Your task to perform on an android device: Go to Reddit.com Image 0: 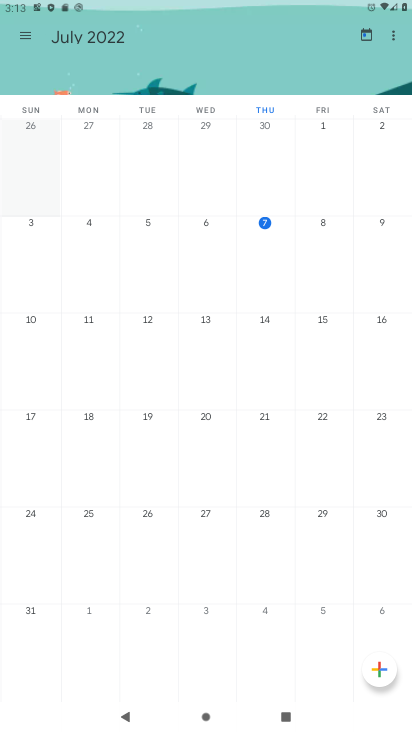
Step 0: press home button
Your task to perform on an android device: Go to Reddit.com Image 1: 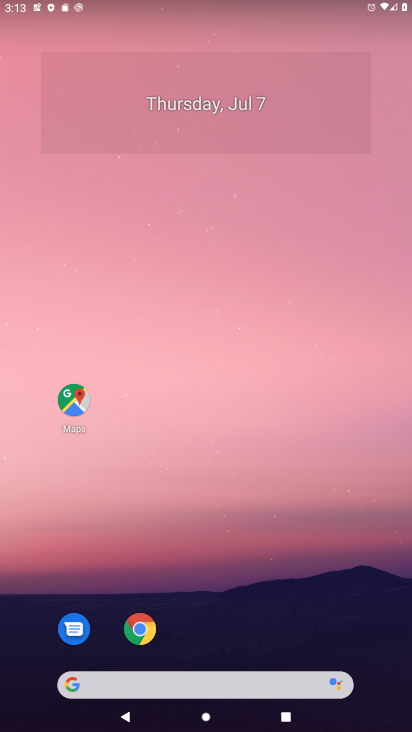
Step 1: click (187, 678)
Your task to perform on an android device: Go to Reddit.com Image 2: 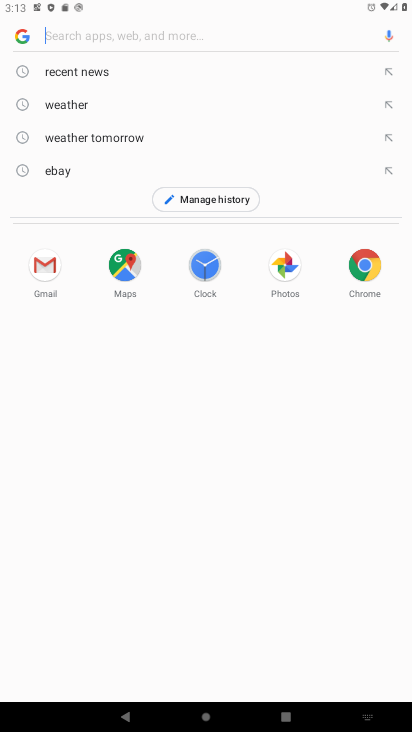
Step 2: type "reddit"
Your task to perform on an android device: Go to Reddit.com Image 3: 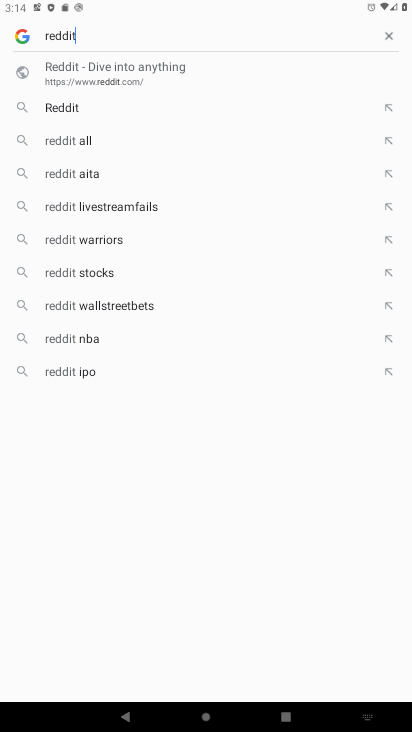
Step 3: click (158, 79)
Your task to perform on an android device: Go to Reddit.com Image 4: 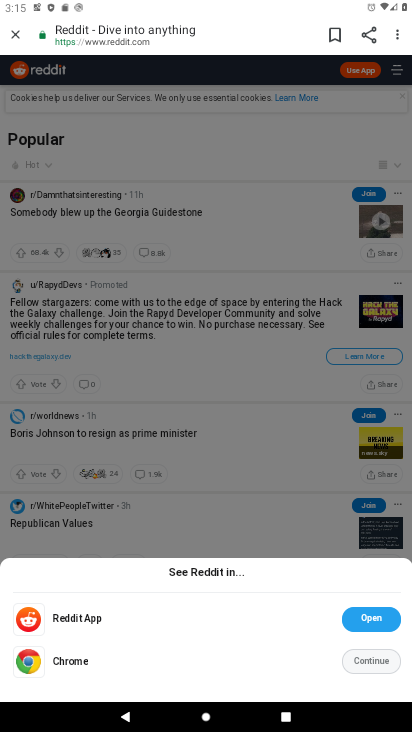
Step 4: task complete